Your task to perform on an android device: Go to Reddit.com Image 0: 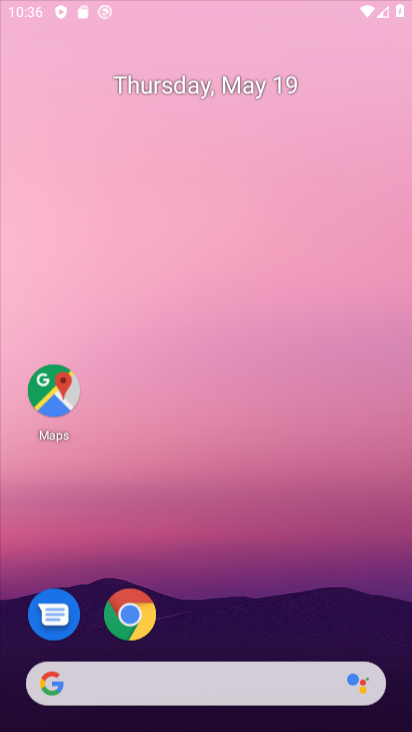
Step 0: drag from (220, 653) to (88, 222)
Your task to perform on an android device: Go to Reddit.com Image 1: 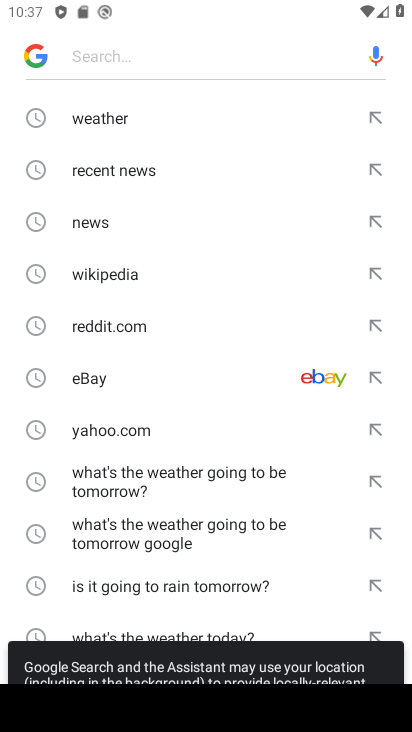
Step 1: press back button
Your task to perform on an android device: Go to Reddit.com Image 2: 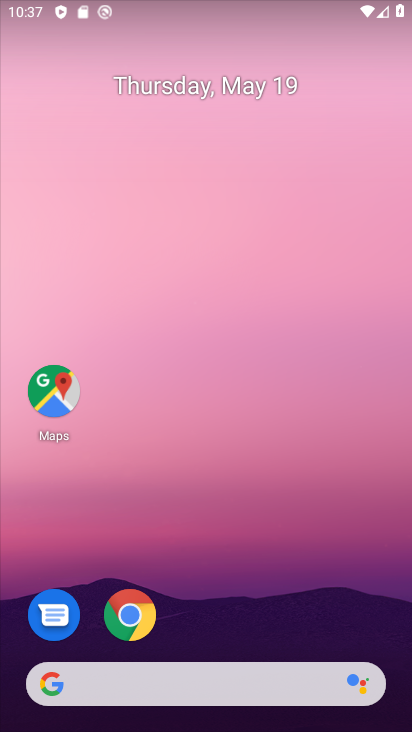
Step 2: drag from (287, 561) to (201, 67)
Your task to perform on an android device: Go to Reddit.com Image 3: 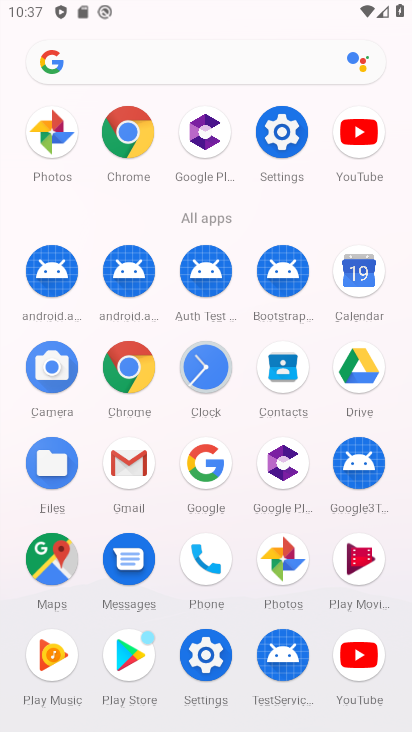
Step 3: click (115, 124)
Your task to perform on an android device: Go to Reddit.com Image 4: 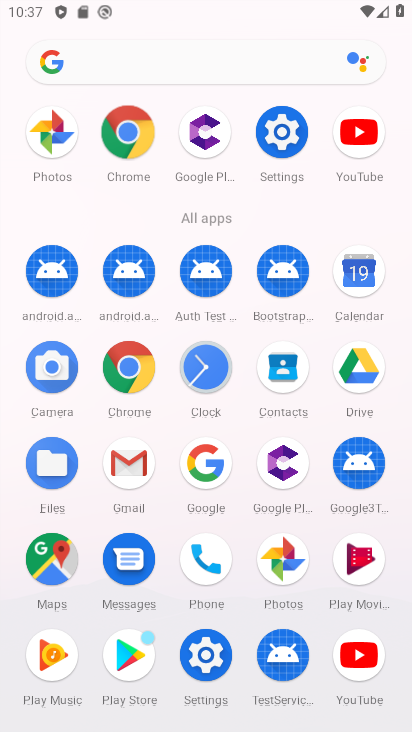
Step 4: click (115, 124)
Your task to perform on an android device: Go to Reddit.com Image 5: 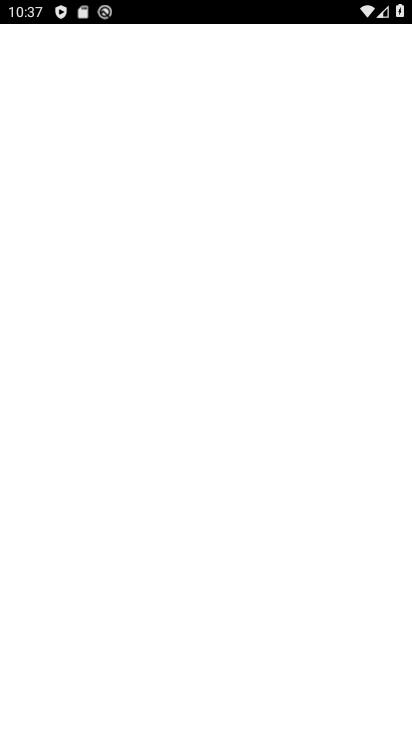
Step 5: click (115, 124)
Your task to perform on an android device: Go to Reddit.com Image 6: 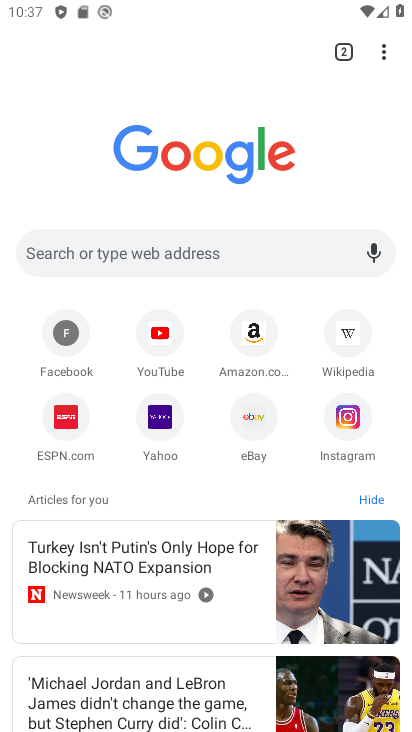
Step 6: drag from (374, 58) to (198, 100)
Your task to perform on an android device: Go to Reddit.com Image 7: 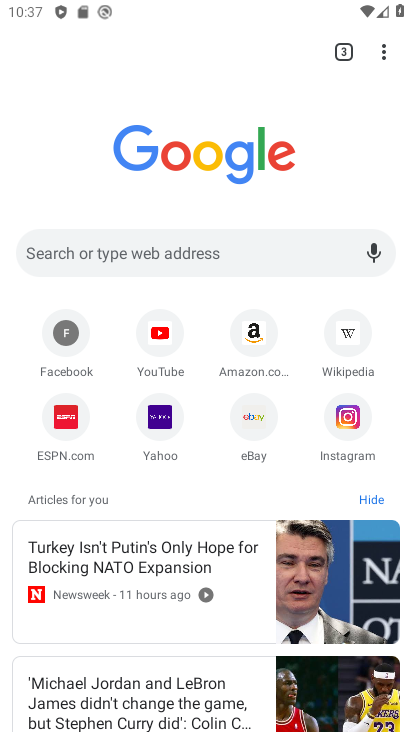
Step 7: click (49, 240)
Your task to perform on an android device: Go to Reddit.com Image 8: 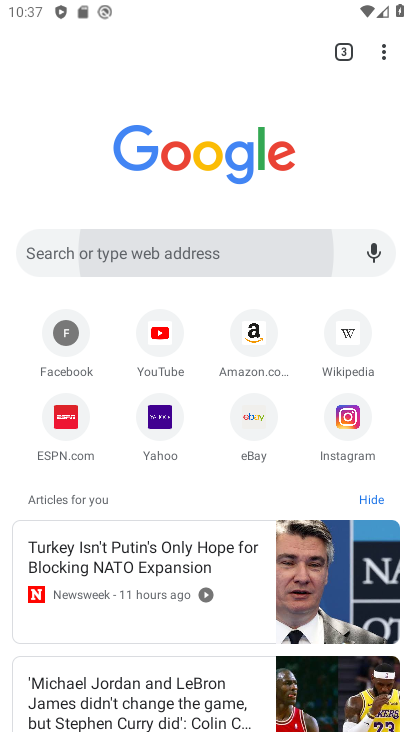
Step 8: click (49, 240)
Your task to perform on an android device: Go to Reddit.com Image 9: 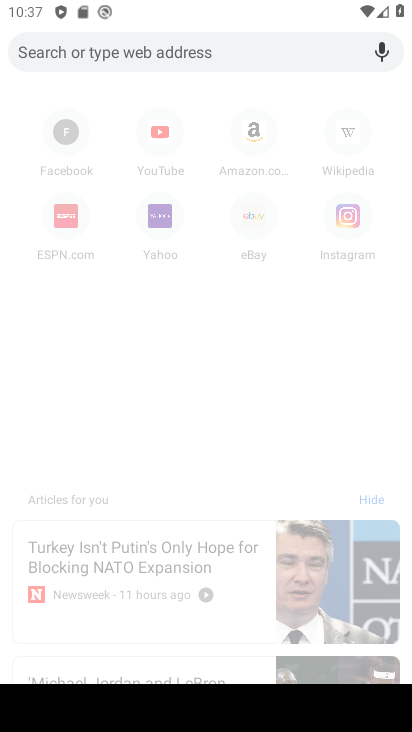
Step 9: type "reddit.com"
Your task to perform on an android device: Go to Reddit.com Image 10: 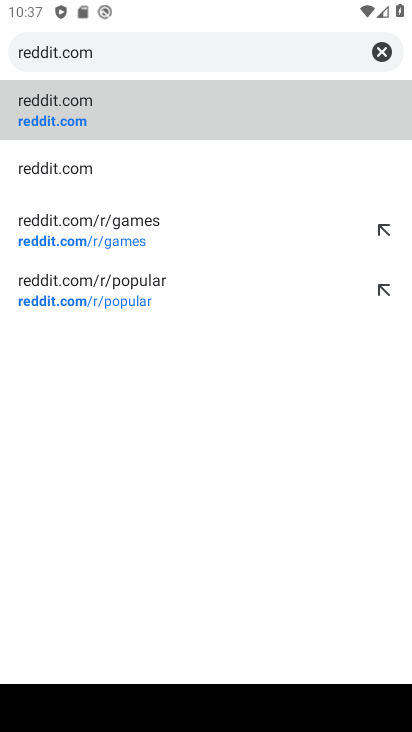
Step 10: click (74, 115)
Your task to perform on an android device: Go to Reddit.com Image 11: 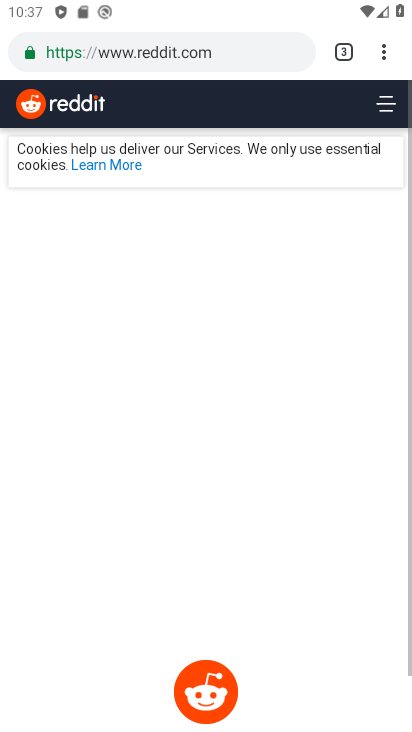
Step 11: task complete